Your task to perform on an android device: What's the weather? Image 0: 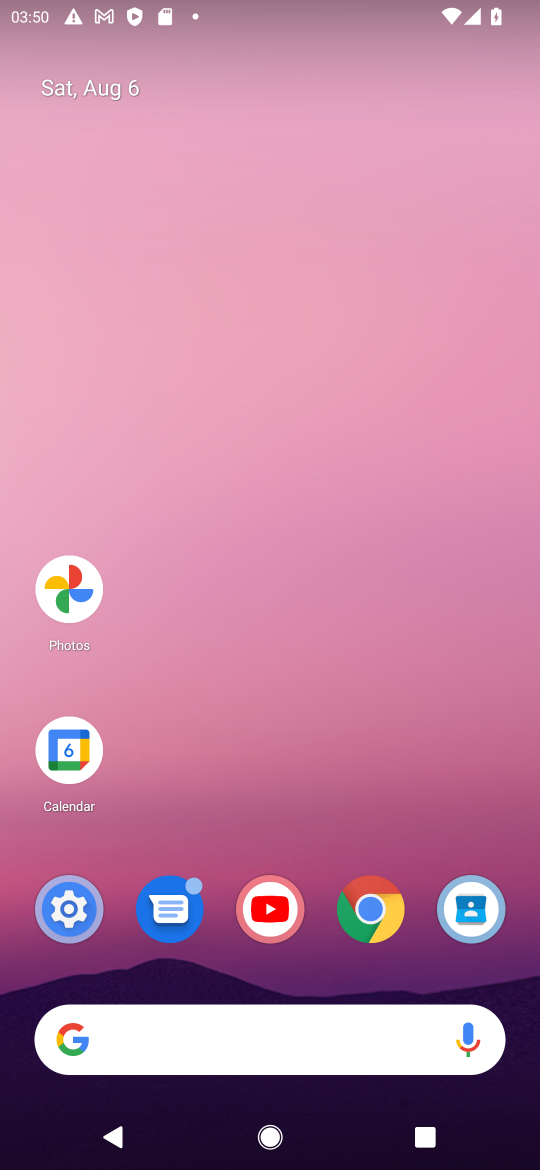
Step 0: click (269, 1034)
Your task to perform on an android device: What's the weather? Image 1: 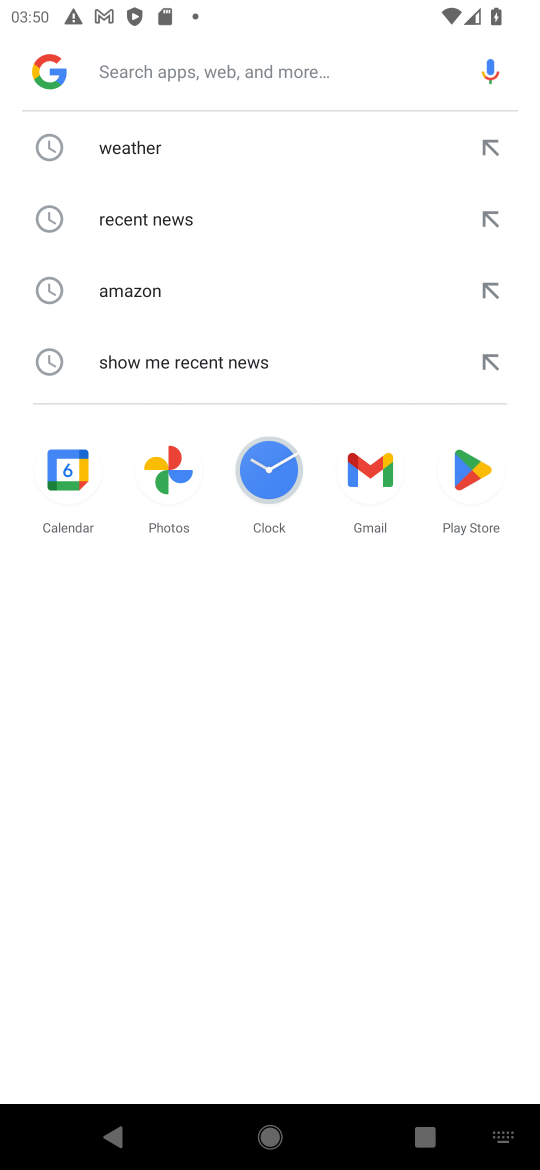
Step 1: click (110, 140)
Your task to perform on an android device: What's the weather? Image 2: 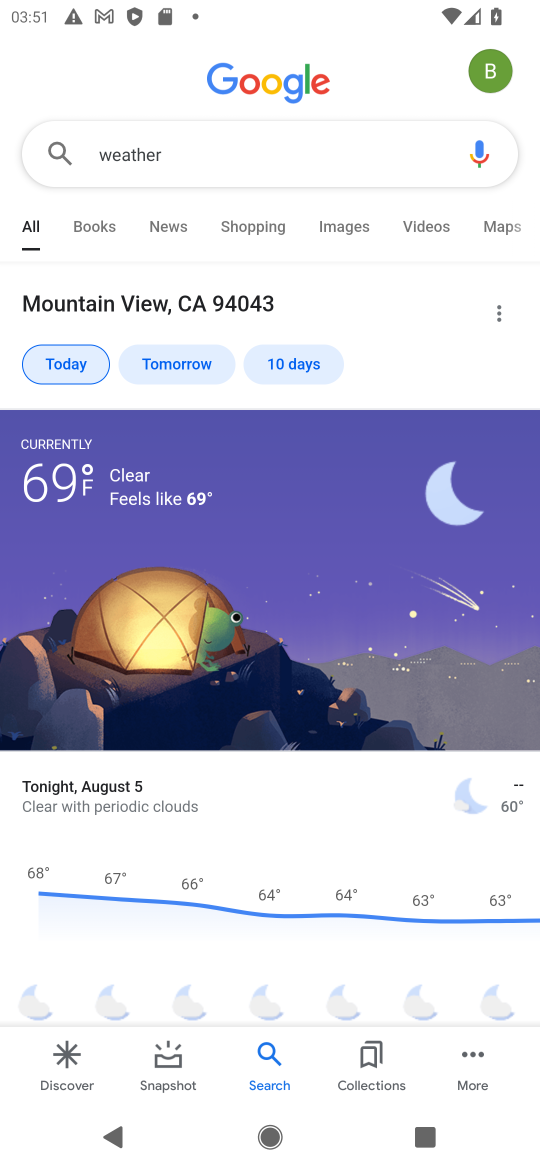
Step 2: task complete